Your task to perform on an android device: set the stopwatch Image 0: 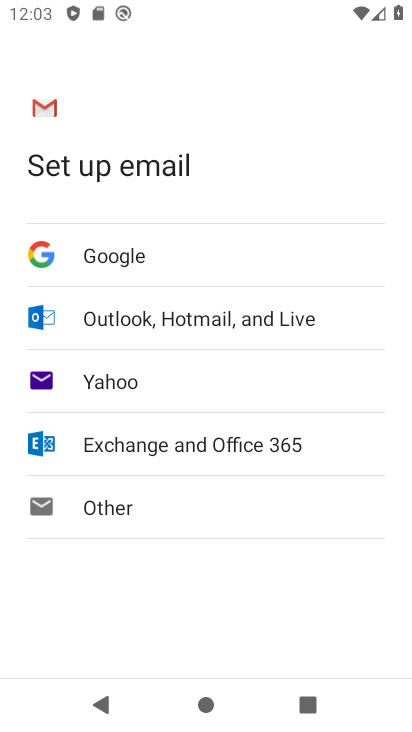
Step 0: press home button
Your task to perform on an android device: set the stopwatch Image 1: 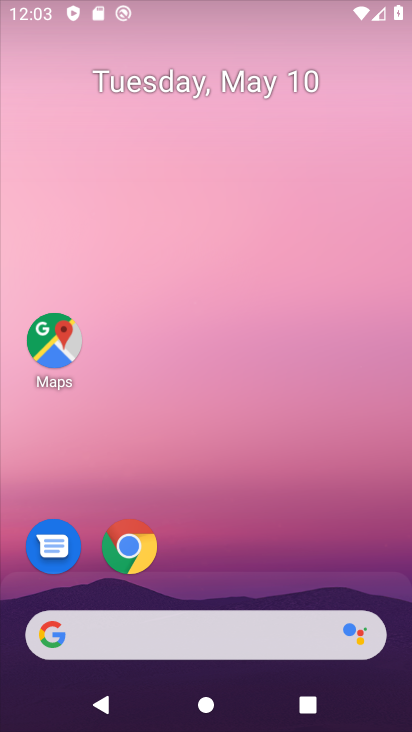
Step 1: drag from (320, 580) to (304, 227)
Your task to perform on an android device: set the stopwatch Image 2: 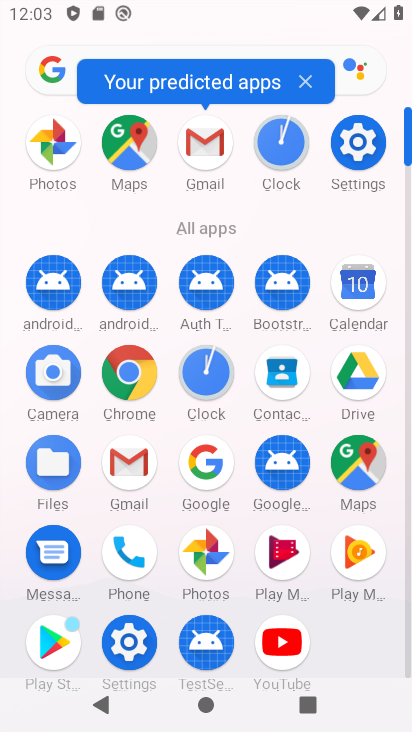
Step 2: click (287, 149)
Your task to perform on an android device: set the stopwatch Image 3: 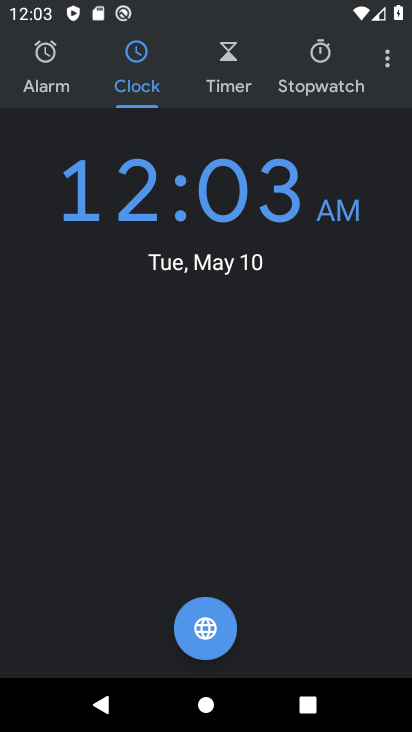
Step 3: click (298, 70)
Your task to perform on an android device: set the stopwatch Image 4: 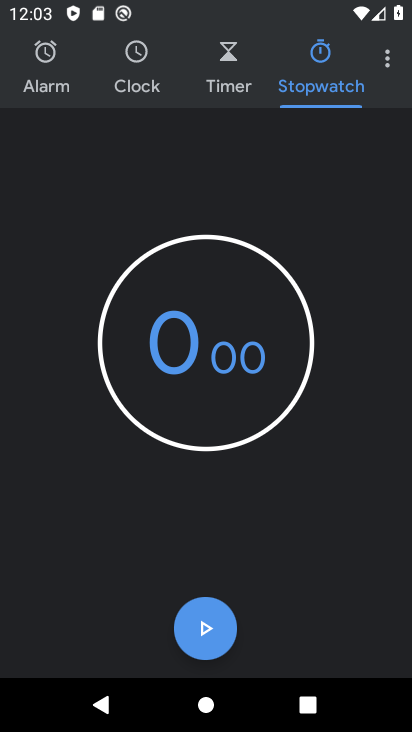
Step 4: click (208, 636)
Your task to perform on an android device: set the stopwatch Image 5: 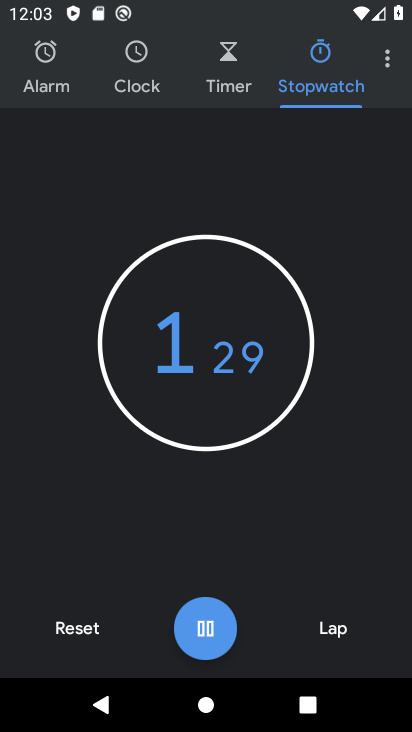
Step 5: task complete